Your task to perform on an android device: Go to Amazon Image 0: 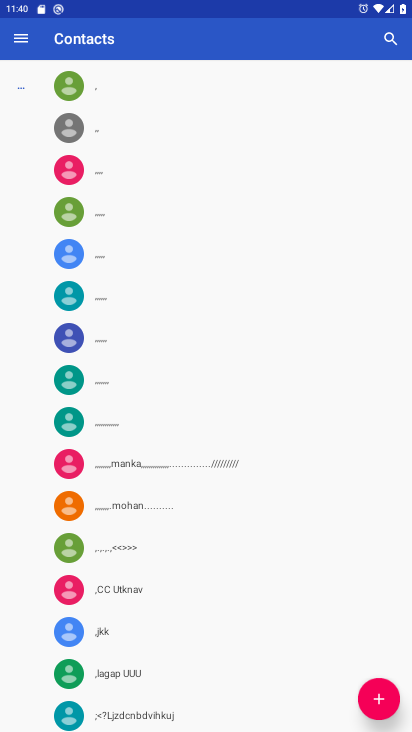
Step 0: press home button
Your task to perform on an android device: Go to Amazon Image 1: 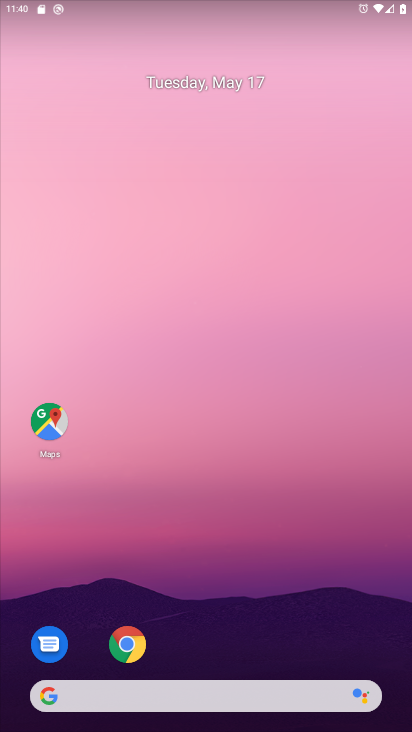
Step 1: click (125, 643)
Your task to perform on an android device: Go to Amazon Image 2: 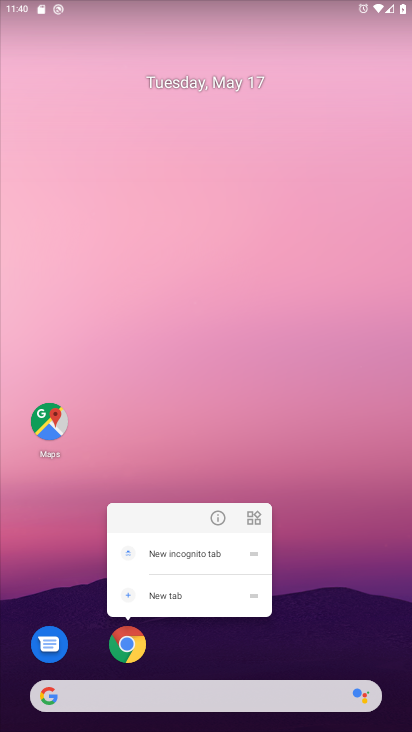
Step 2: click (124, 642)
Your task to perform on an android device: Go to Amazon Image 3: 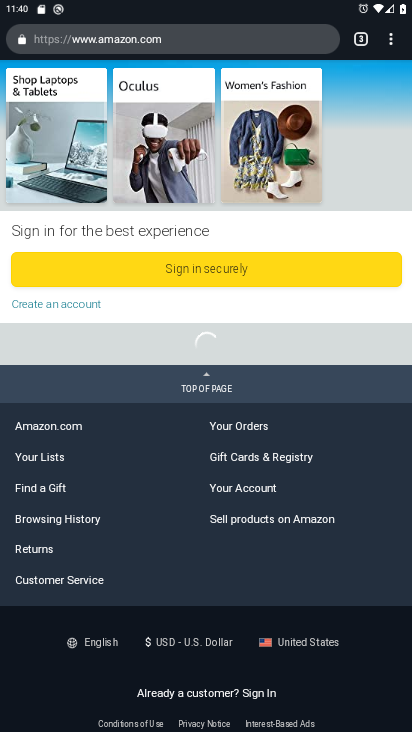
Step 3: task complete